Your task to perform on an android device: Add "usb-c" to the cart on bestbuy, then select checkout. Image 0: 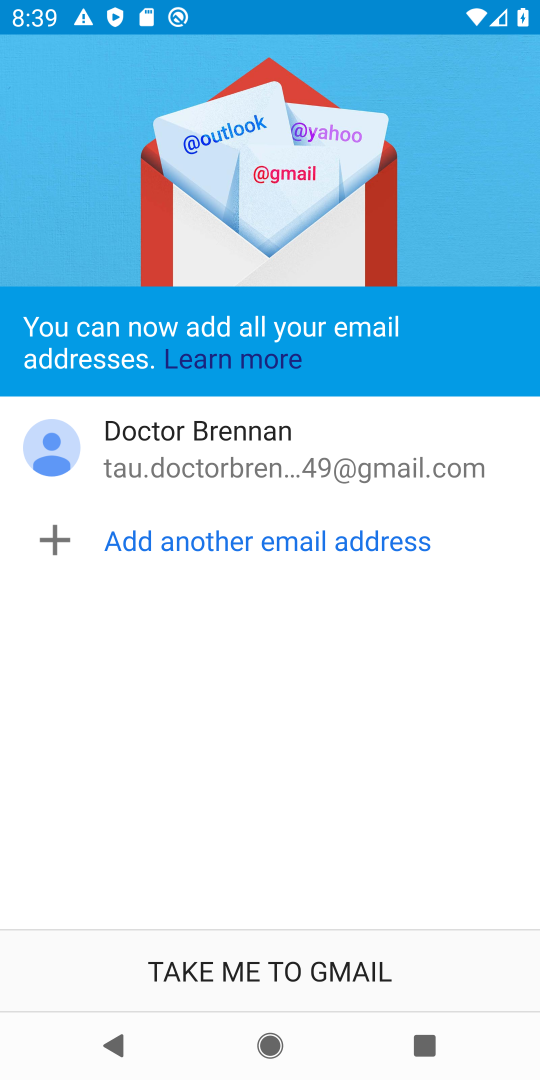
Step 0: press home button
Your task to perform on an android device: Add "usb-c" to the cart on bestbuy, then select checkout. Image 1: 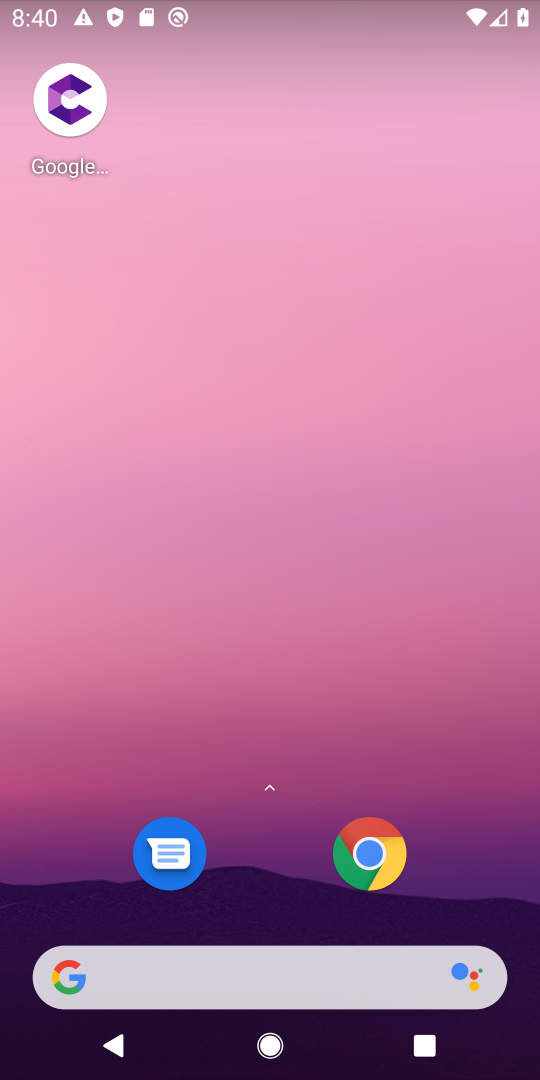
Step 1: click (257, 963)
Your task to perform on an android device: Add "usb-c" to the cart on bestbuy, then select checkout. Image 2: 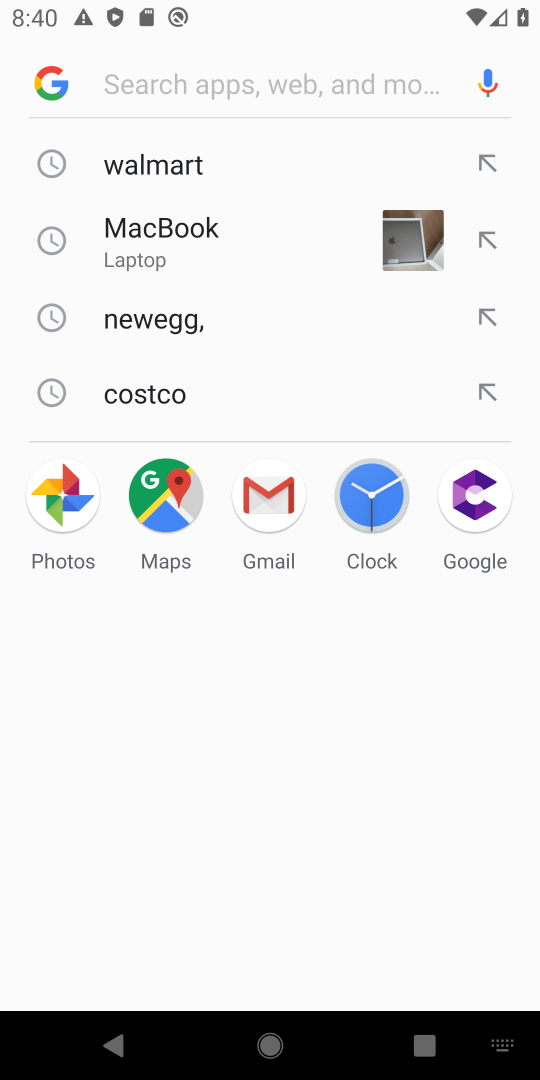
Step 2: type "usb-c "
Your task to perform on an android device: Add "usb-c" to the cart on bestbuy, then select checkout. Image 3: 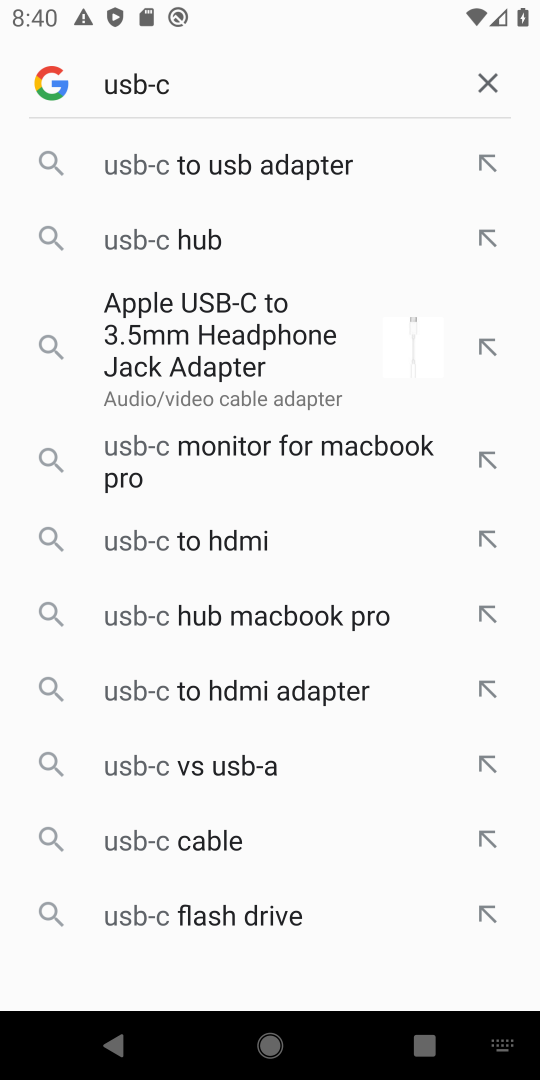
Step 3: click (209, 224)
Your task to perform on an android device: Add "usb-c" to the cart on bestbuy, then select checkout. Image 4: 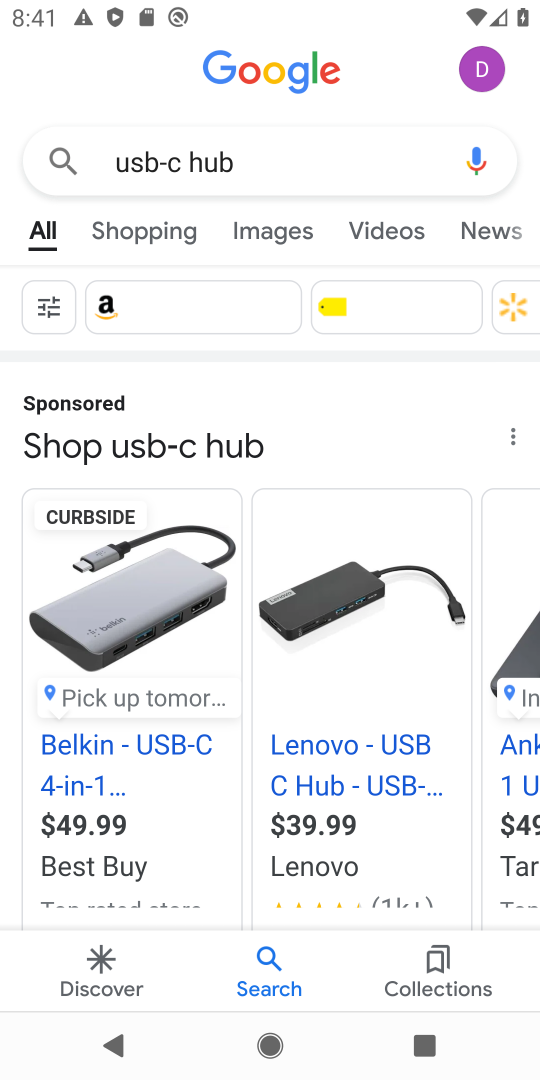
Step 4: click (125, 736)
Your task to perform on an android device: Add "usb-c" to the cart on bestbuy, then select checkout. Image 5: 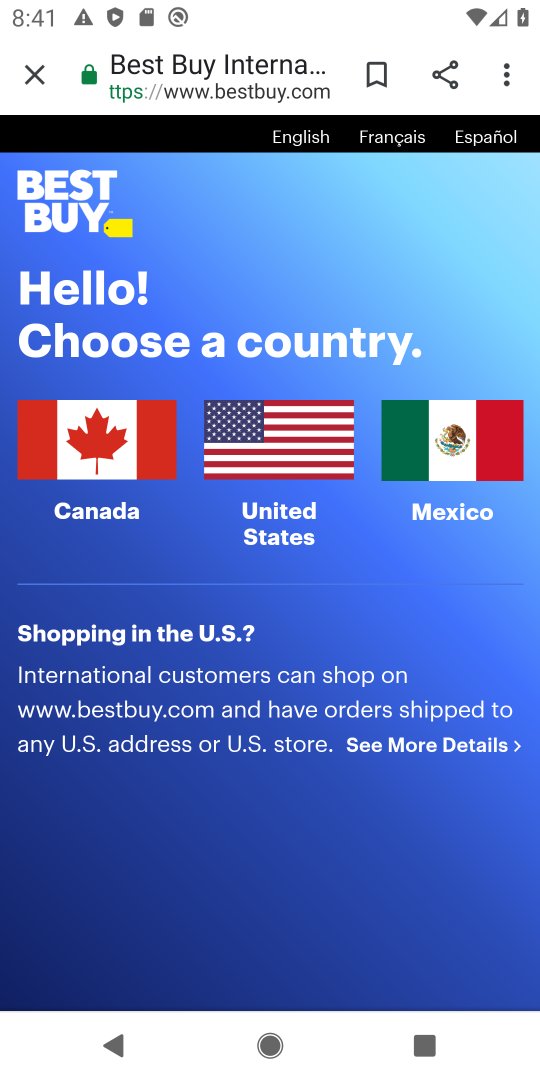
Step 5: click (419, 422)
Your task to perform on an android device: Add "usb-c" to the cart on bestbuy, then select checkout. Image 6: 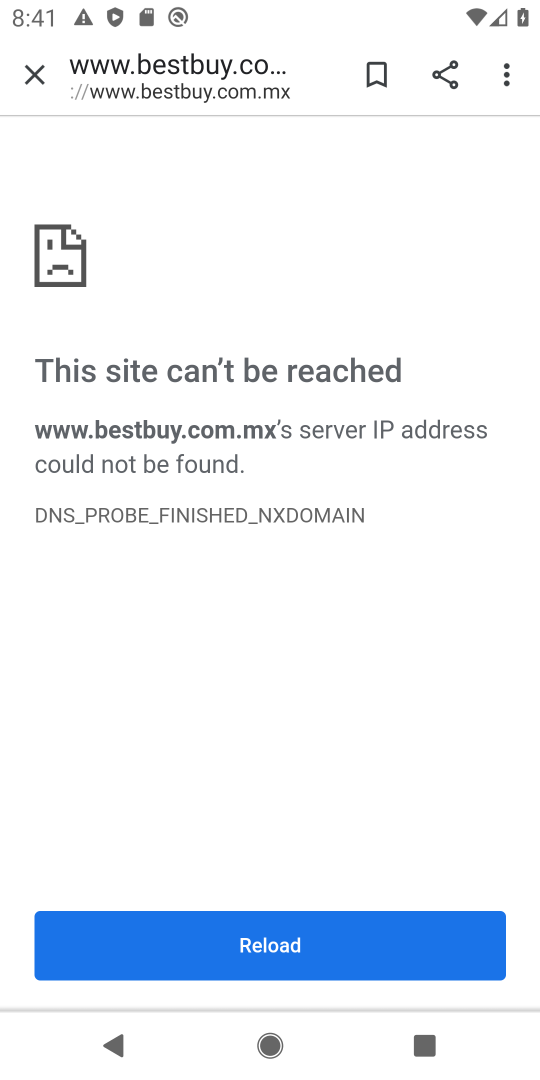
Step 6: press home button
Your task to perform on an android device: Add "usb-c" to the cart on bestbuy, then select checkout. Image 7: 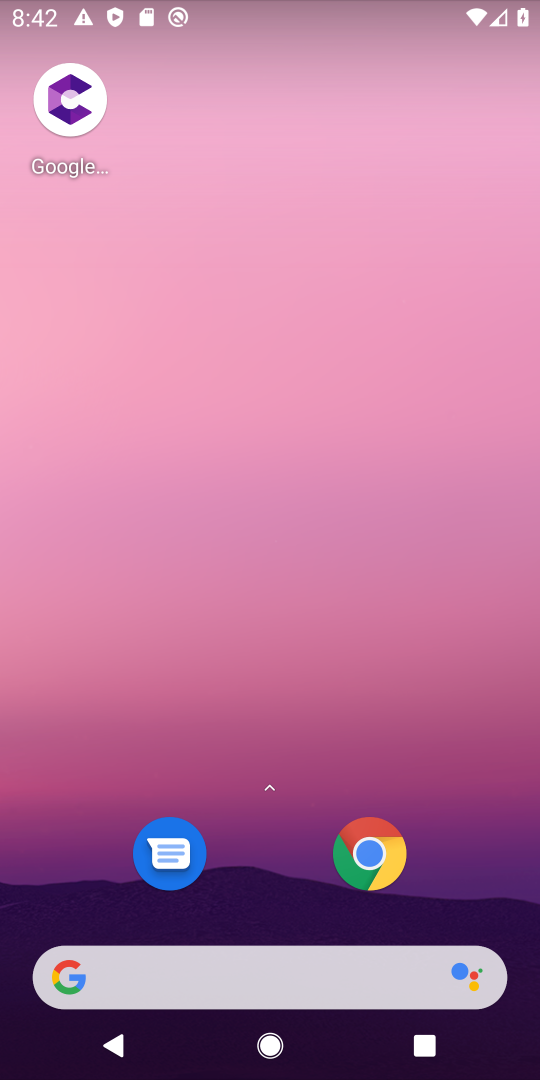
Step 7: click (383, 981)
Your task to perform on an android device: Add "usb-c" to the cart on bestbuy, then select checkout. Image 8: 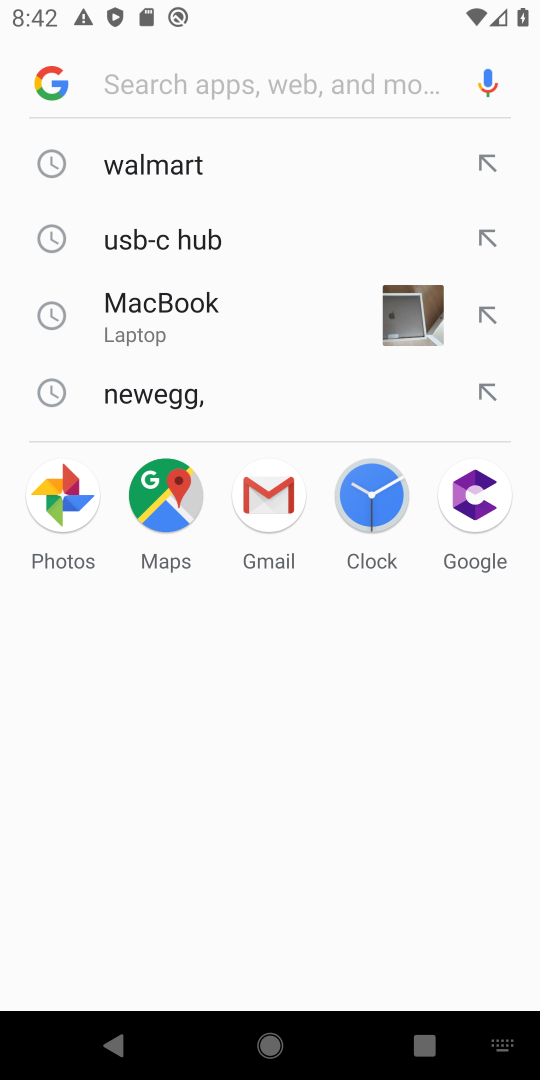
Step 8: click (150, 235)
Your task to perform on an android device: Add "usb-c" to the cart on bestbuy, then select checkout. Image 9: 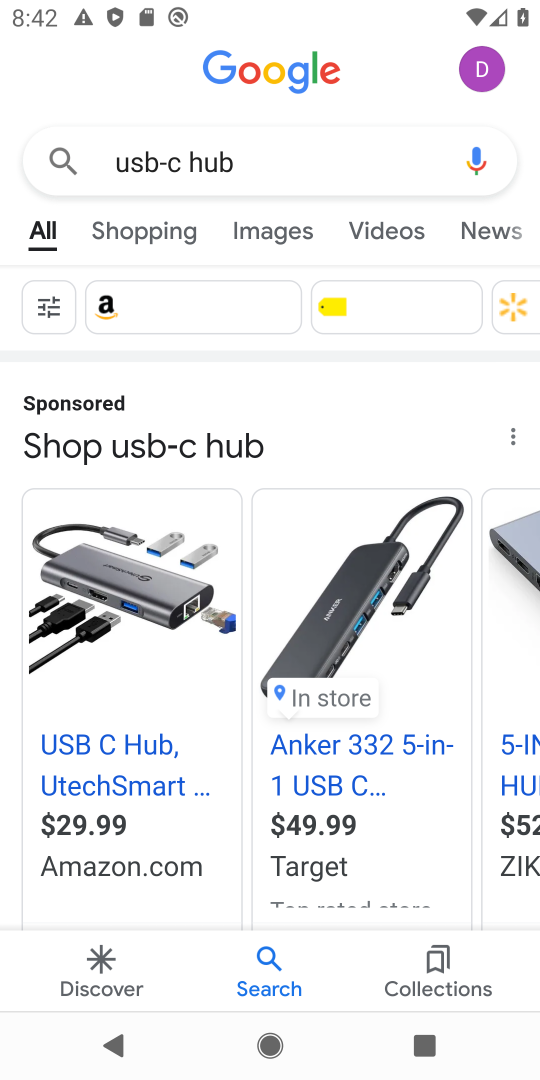
Step 9: task complete